Your task to perform on an android device: Set the phone to "Do not disturb". Image 0: 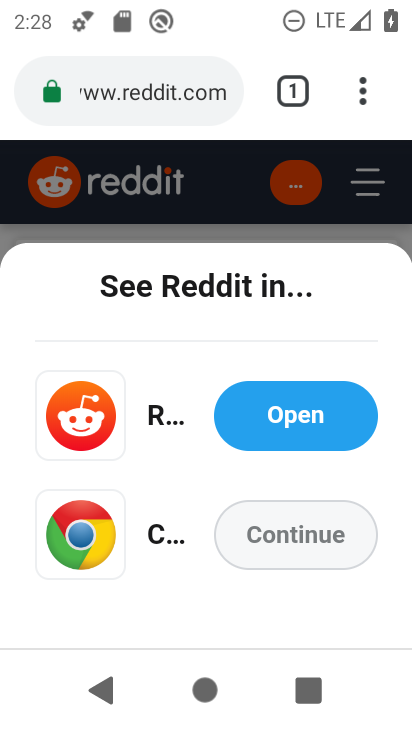
Step 0: press home button
Your task to perform on an android device: Set the phone to "Do not disturb". Image 1: 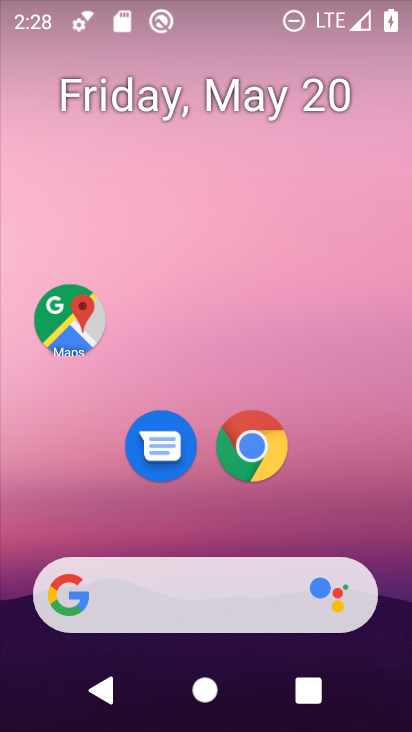
Step 1: drag from (352, 550) to (364, 16)
Your task to perform on an android device: Set the phone to "Do not disturb". Image 2: 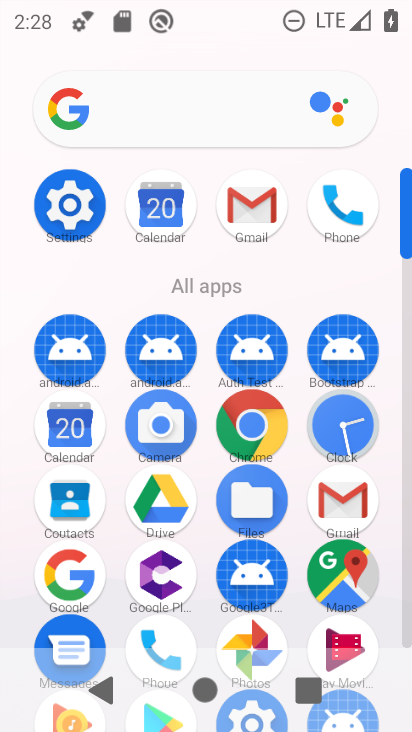
Step 2: click (67, 211)
Your task to perform on an android device: Set the phone to "Do not disturb". Image 3: 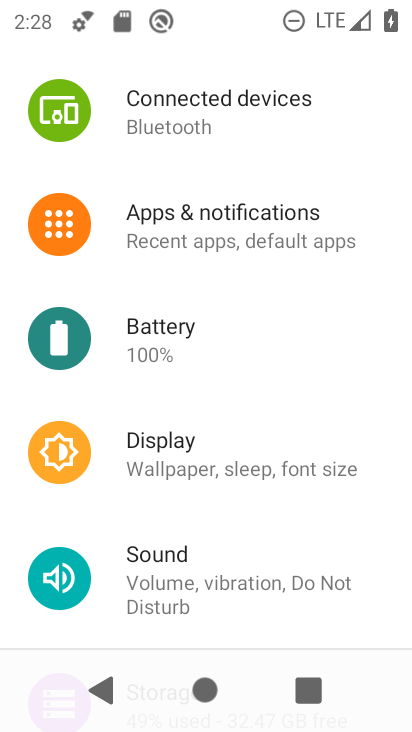
Step 3: click (171, 557)
Your task to perform on an android device: Set the phone to "Do not disturb". Image 4: 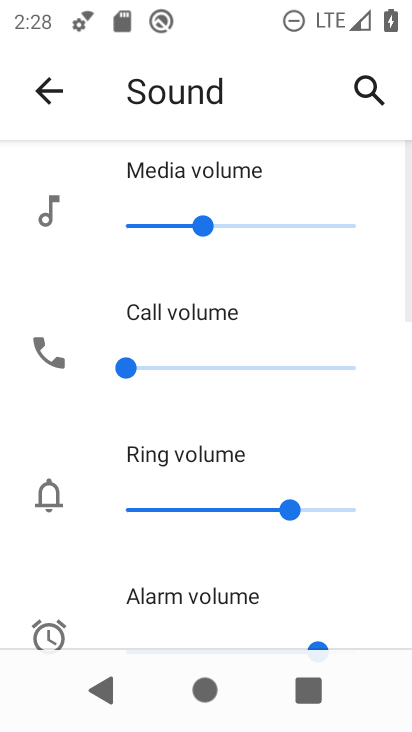
Step 4: drag from (283, 541) to (266, 175)
Your task to perform on an android device: Set the phone to "Do not disturb". Image 5: 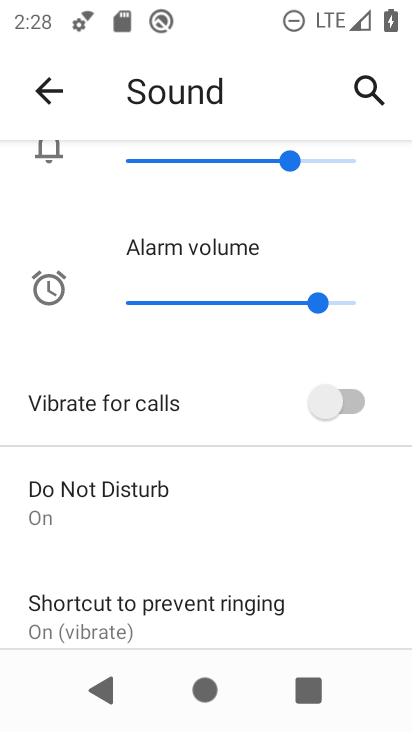
Step 5: click (105, 487)
Your task to perform on an android device: Set the phone to "Do not disturb". Image 6: 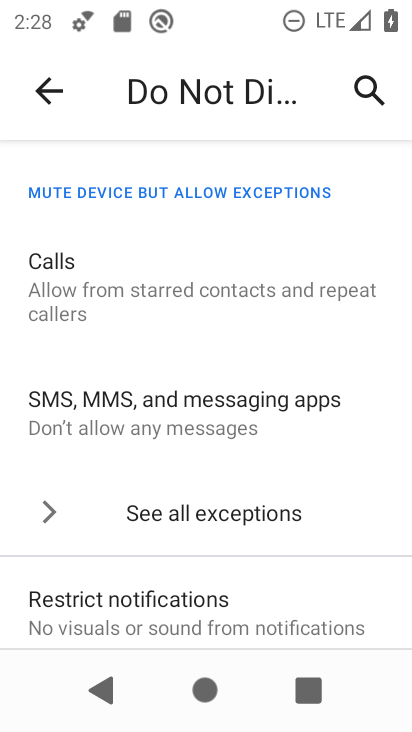
Step 6: task complete